Your task to perform on an android device: See recent photos Image 0: 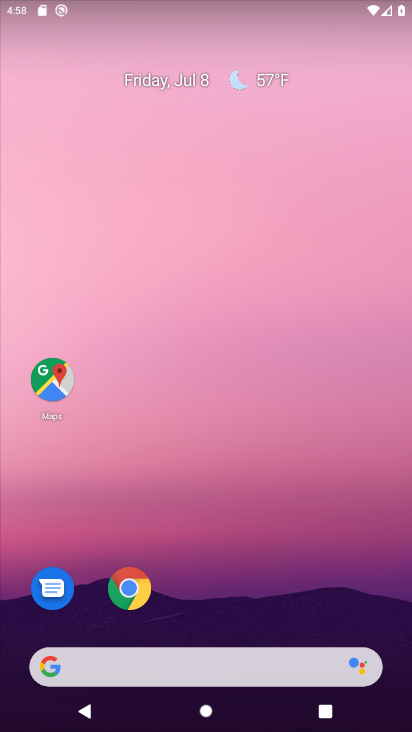
Step 0: press back button
Your task to perform on an android device: See recent photos Image 1: 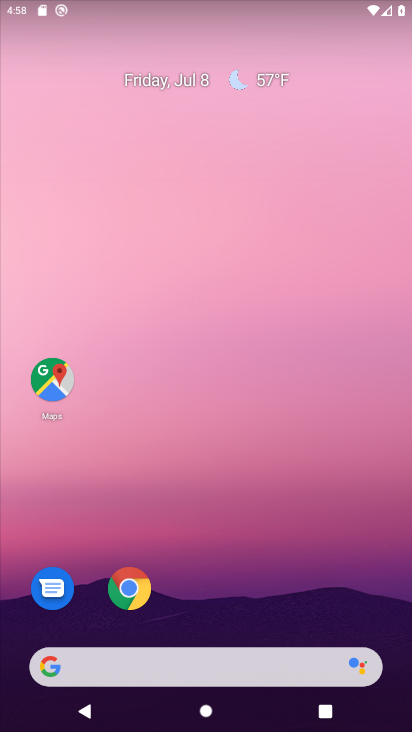
Step 1: press home button
Your task to perform on an android device: See recent photos Image 2: 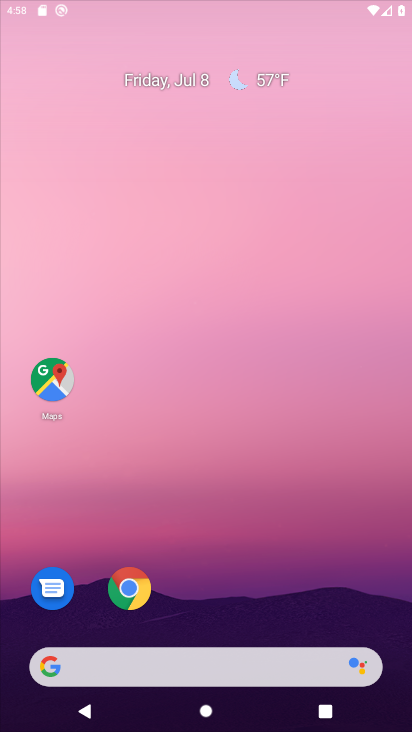
Step 2: press back button
Your task to perform on an android device: See recent photos Image 3: 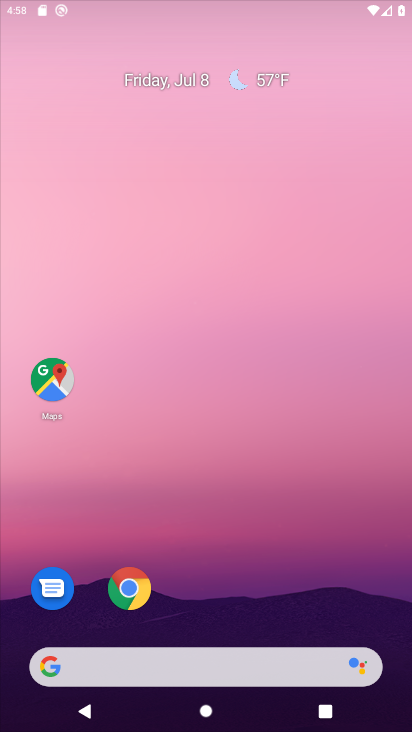
Step 3: drag from (101, 54) to (38, 288)
Your task to perform on an android device: See recent photos Image 4: 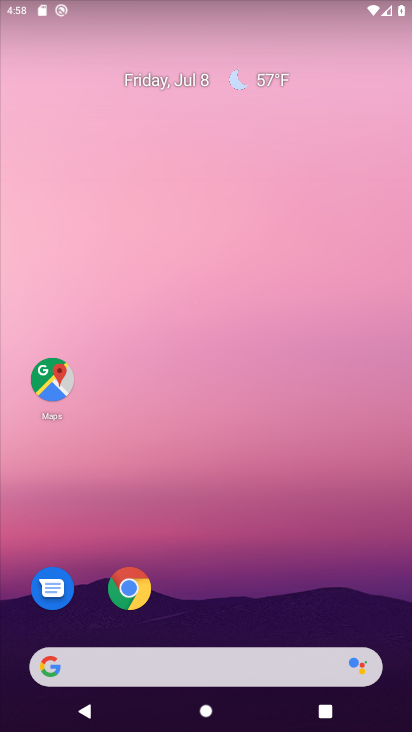
Step 4: drag from (294, 580) to (186, 38)
Your task to perform on an android device: See recent photos Image 5: 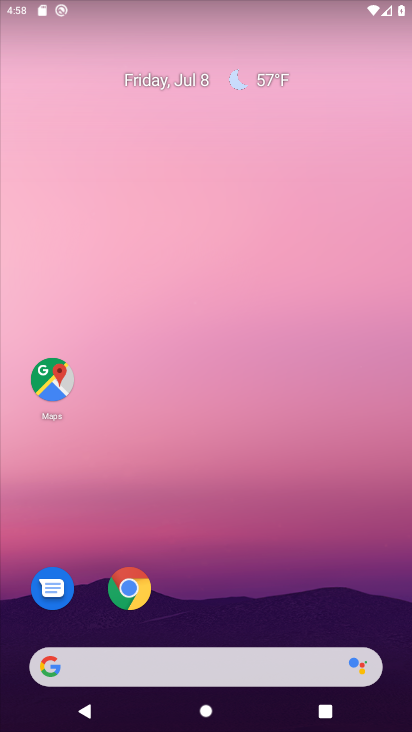
Step 5: click (217, 53)
Your task to perform on an android device: See recent photos Image 6: 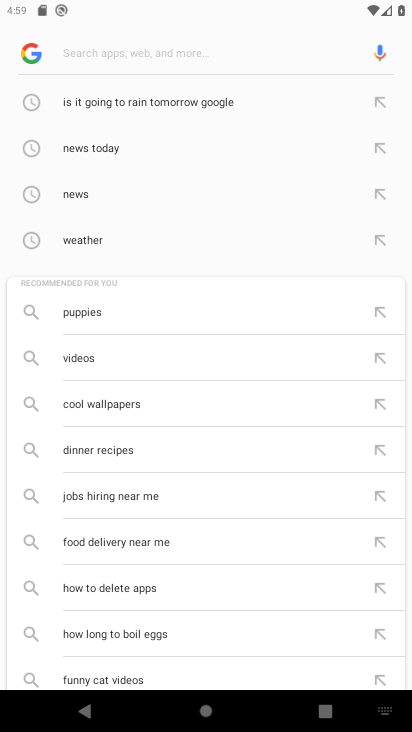
Step 6: press back button
Your task to perform on an android device: See recent photos Image 7: 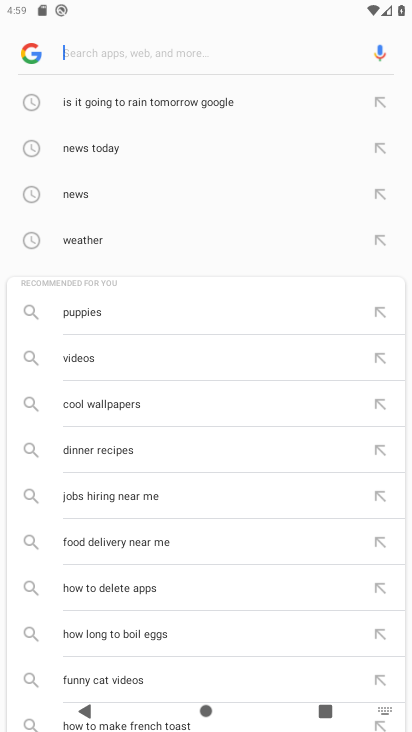
Step 7: press back button
Your task to perform on an android device: See recent photos Image 8: 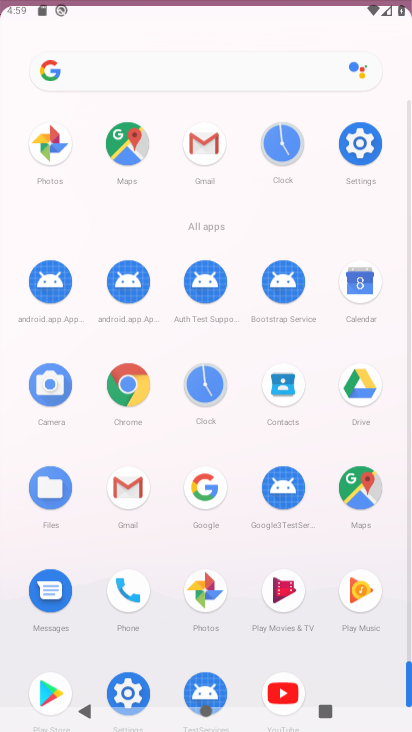
Step 8: press back button
Your task to perform on an android device: See recent photos Image 9: 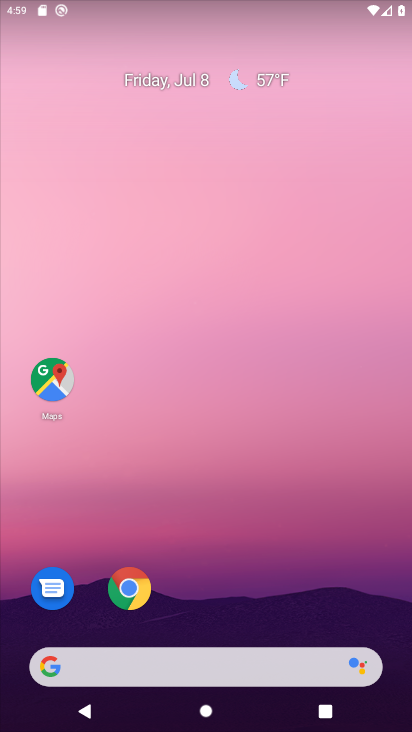
Step 9: drag from (207, 661) to (79, 0)
Your task to perform on an android device: See recent photos Image 10: 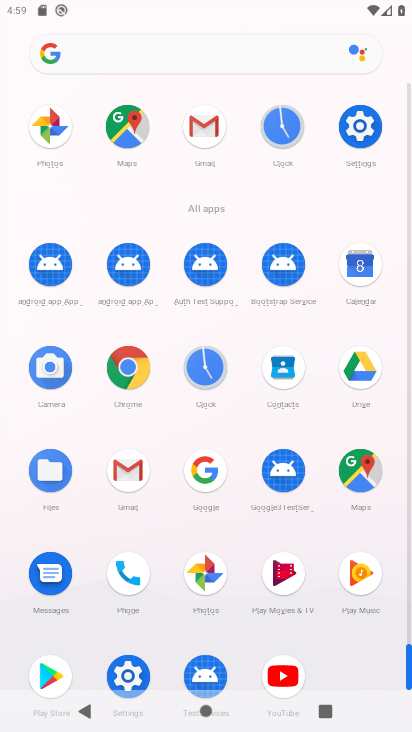
Step 10: drag from (180, 315) to (169, 32)
Your task to perform on an android device: See recent photos Image 11: 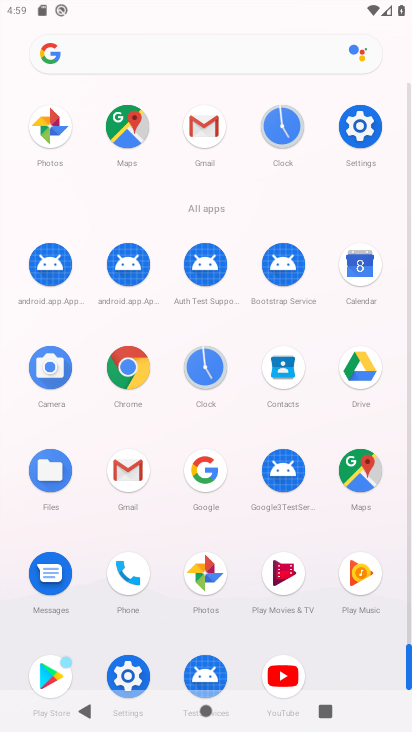
Step 11: click (205, 570)
Your task to perform on an android device: See recent photos Image 12: 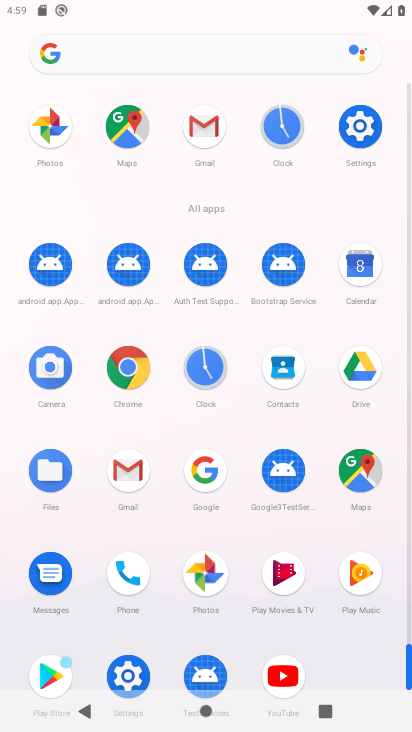
Step 12: click (204, 572)
Your task to perform on an android device: See recent photos Image 13: 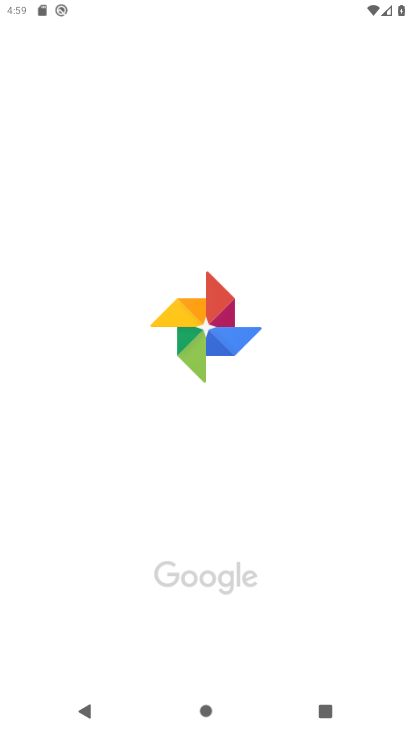
Step 13: click (206, 574)
Your task to perform on an android device: See recent photos Image 14: 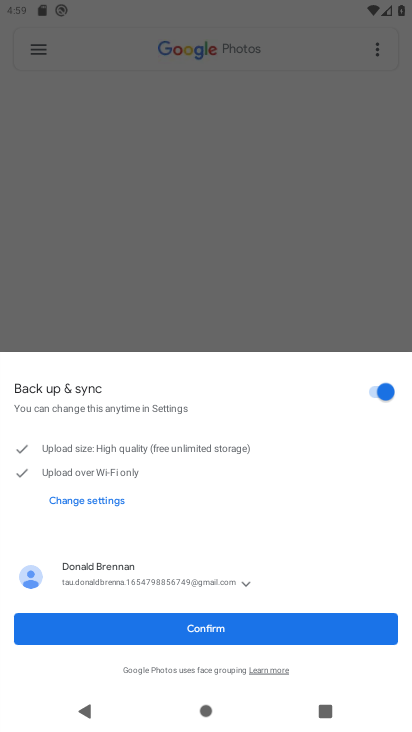
Step 14: click (175, 191)
Your task to perform on an android device: See recent photos Image 15: 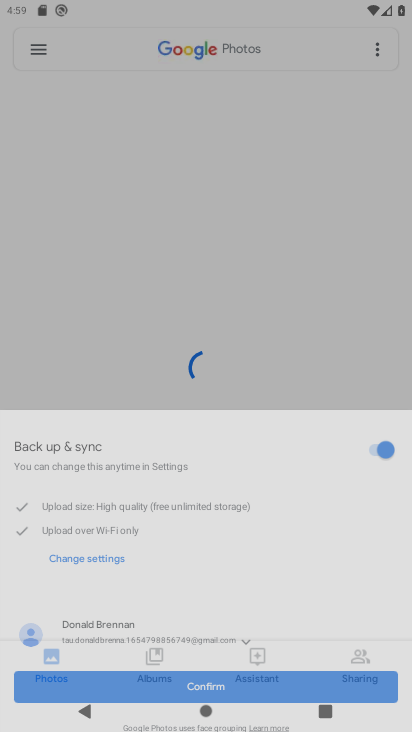
Step 15: click (206, 623)
Your task to perform on an android device: See recent photos Image 16: 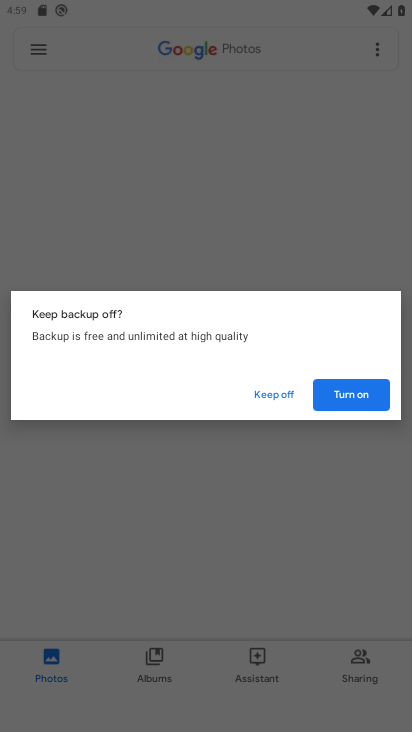
Step 16: click (206, 166)
Your task to perform on an android device: See recent photos Image 17: 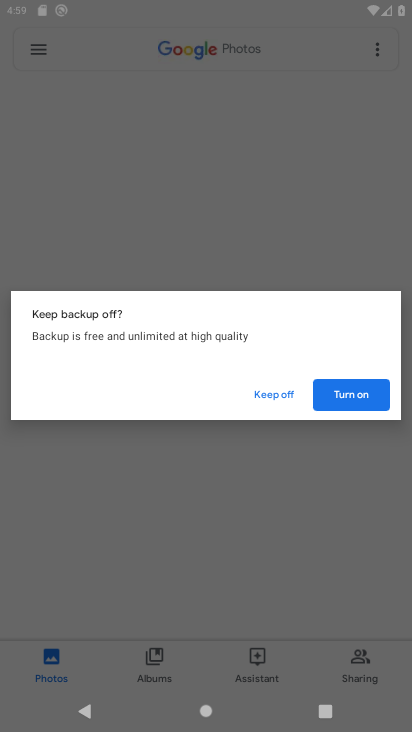
Step 17: click (218, 167)
Your task to perform on an android device: See recent photos Image 18: 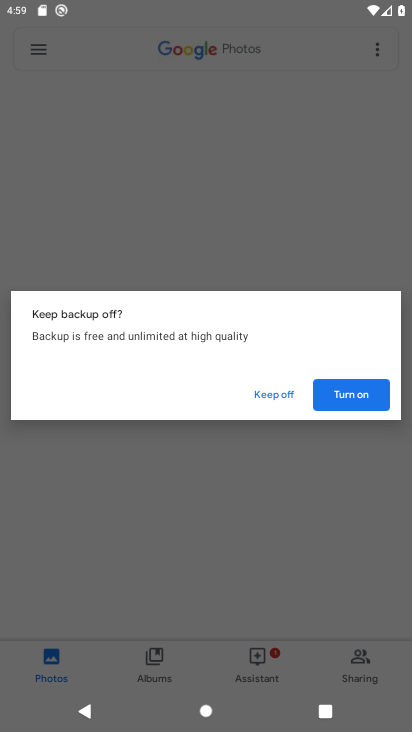
Step 18: click (224, 182)
Your task to perform on an android device: See recent photos Image 19: 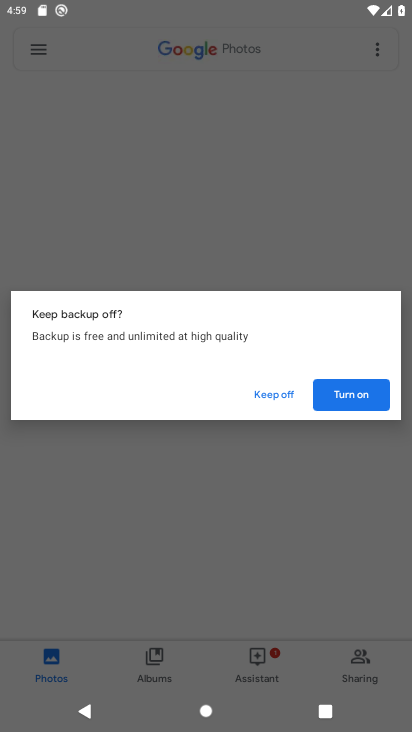
Step 19: task complete